Your task to perform on an android device: stop showing notifications on the lock screen Image 0: 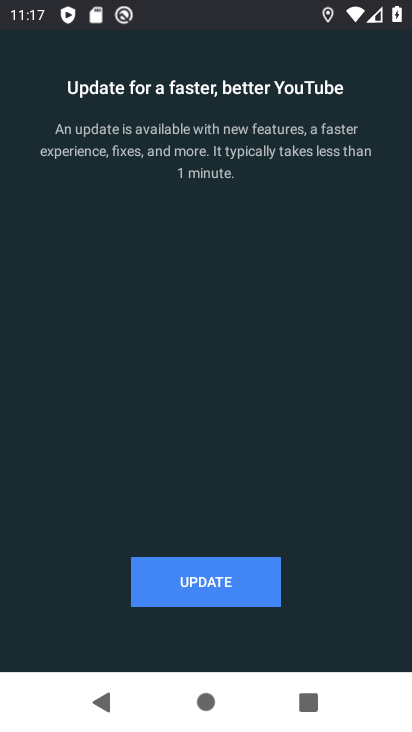
Step 0: press back button
Your task to perform on an android device: stop showing notifications on the lock screen Image 1: 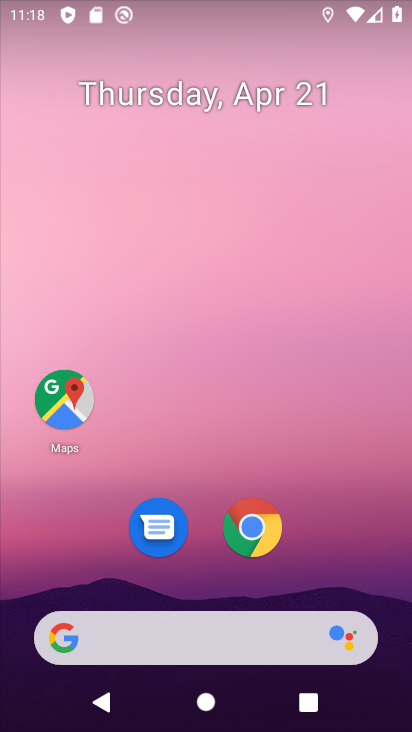
Step 1: drag from (166, 607) to (268, 95)
Your task to perform on an android device: stop showing notifications on the lock screen Image 2: 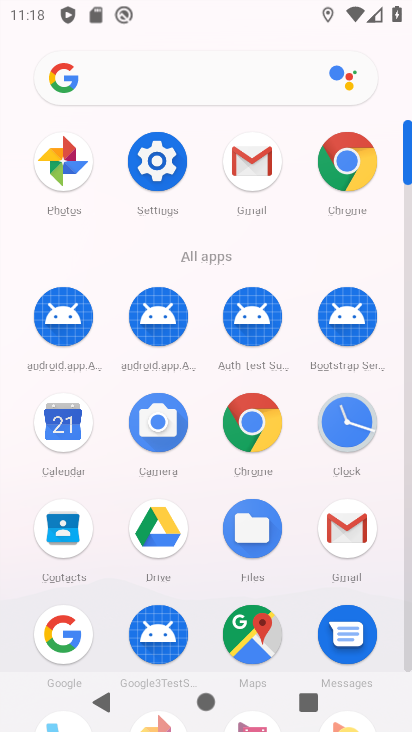
Step 2: drag from (203, 615) to (287, 298)
Your task to perform on an android device: stop showing notifications on the lock screen Image 3: 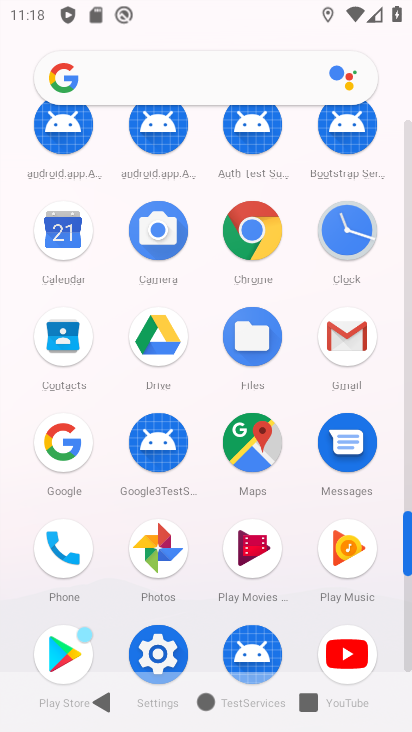
Step 3: click (171, 660)
Your task to perform on an android device: stop showing notifications on the lock screen Image 4: 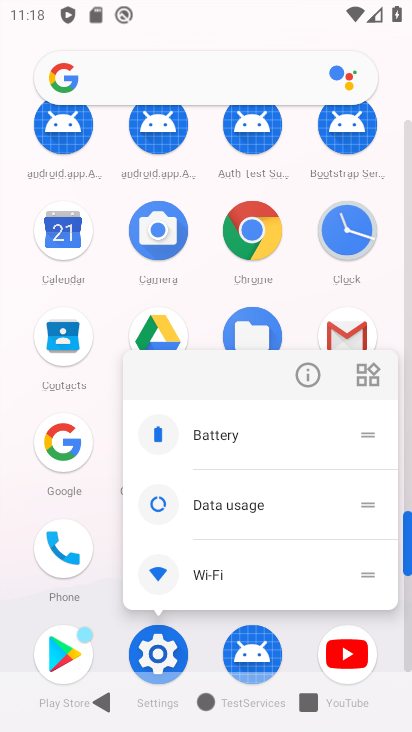
Step 4: click (160, 648)
Your task to perform on an android device: stop showing notifications on the lock screen Image 5: 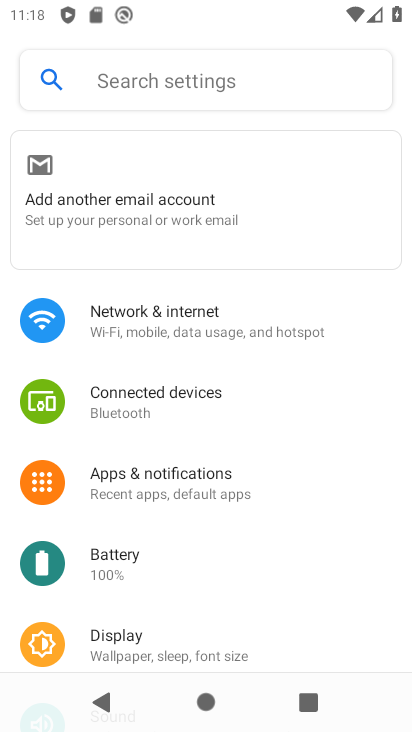
Step 5: click (208, 494)
Your task to perform on an android device: stop showing notifications on the lock screen Image 6: 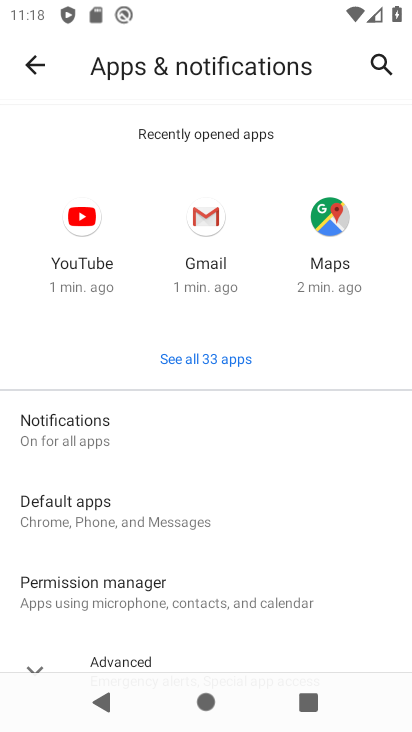
Step 6: click (136, 439)
Your task to perform on an android device: stop showing notifications on the lock screen Image 7: 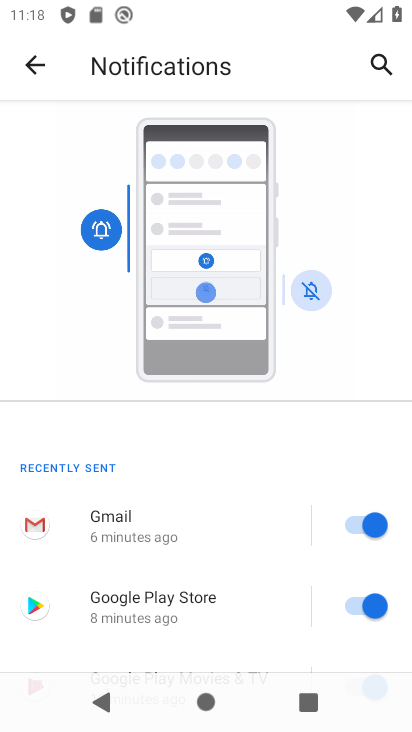
Step 7: drag from (182, 533) to (319, 173)
Your task to perform on an android device: stop showing notifications on the lock screen Image 8: 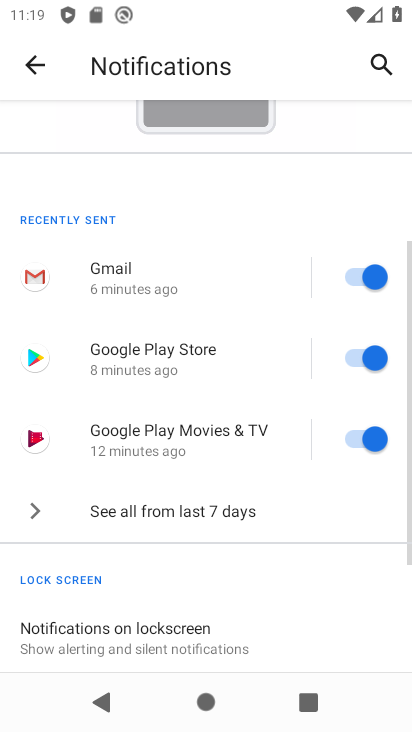
Step 8: drag from (213, 608) to (267, 409)
Your task to perform on an android device: stop showing notifications on the lock screen Image 9: 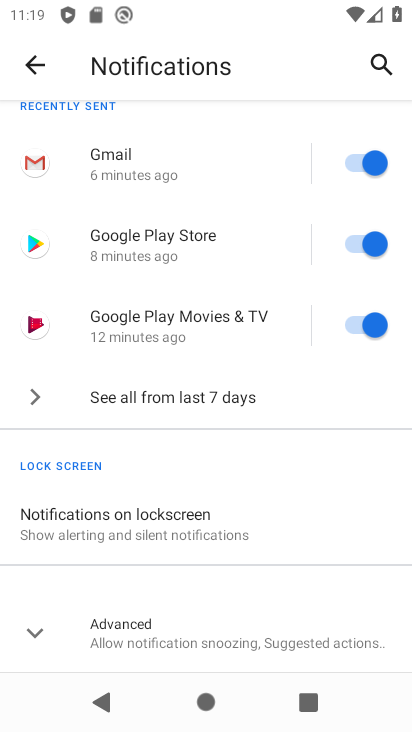
Step 9: click (194, 535)
Your task to perform on an android device: stop showing notifications on the lock screen Image 10: 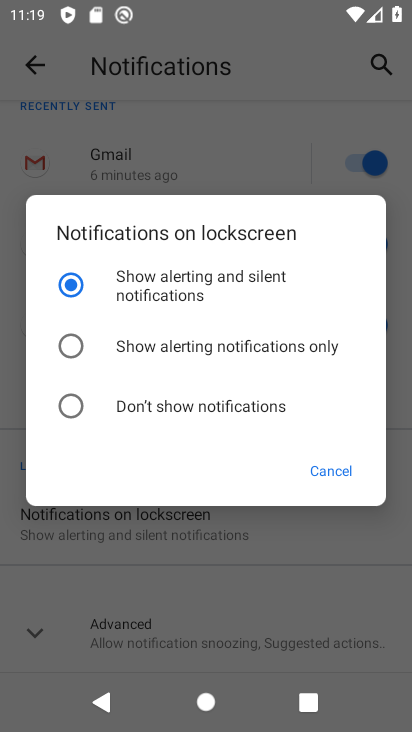
Step 10: click (178, 414)
Your task to perform on an android device: stop showing notifications on the lock screen Image 11: 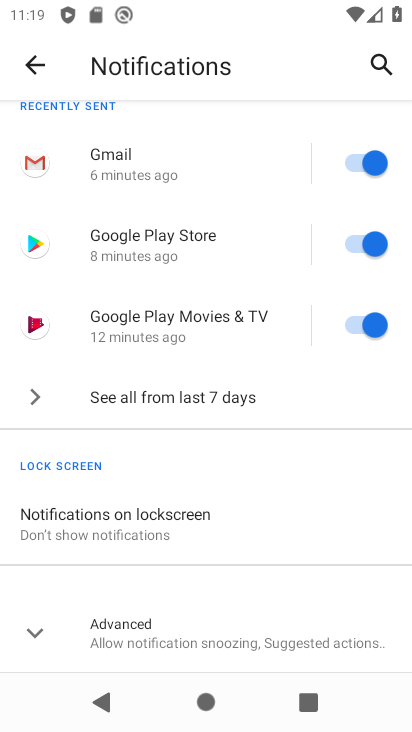
Step 11: task complete